Your task to perform on an android device: Open my contact list Image 0: 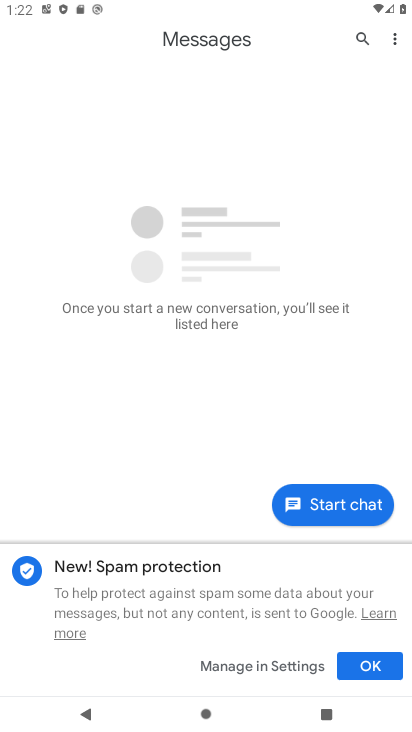
Step 0: press home button
Your task to perform on an android device: Open my contact list Image 1: 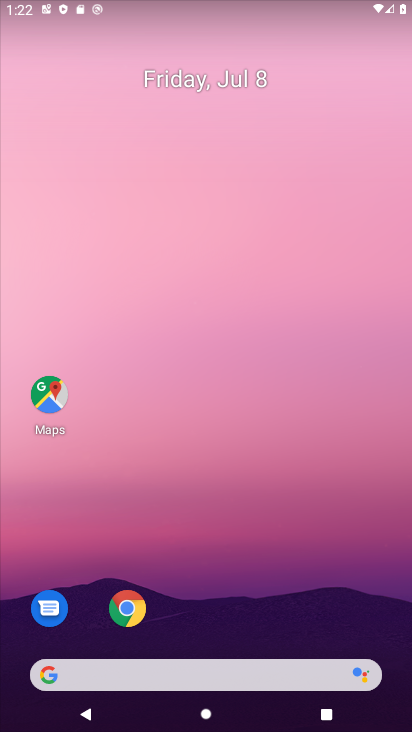
Step 1: drag from (380, 641) to (324, 88)
Your task to perform on an android device: Open my contact list Image 2: 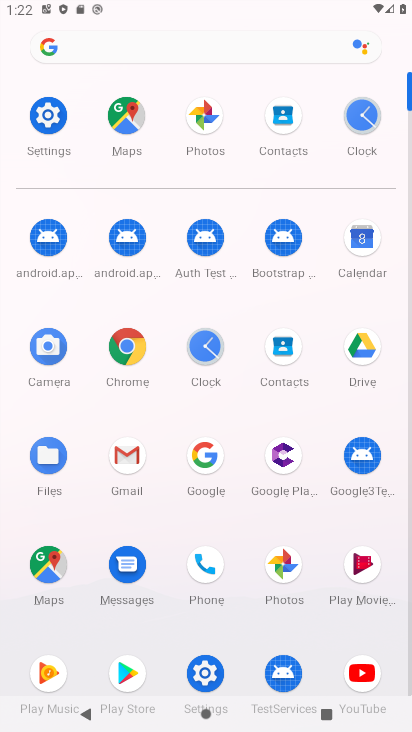
Step 2: click (280, 350)
Your task to perform on an android device: Open my contact list Image 3: 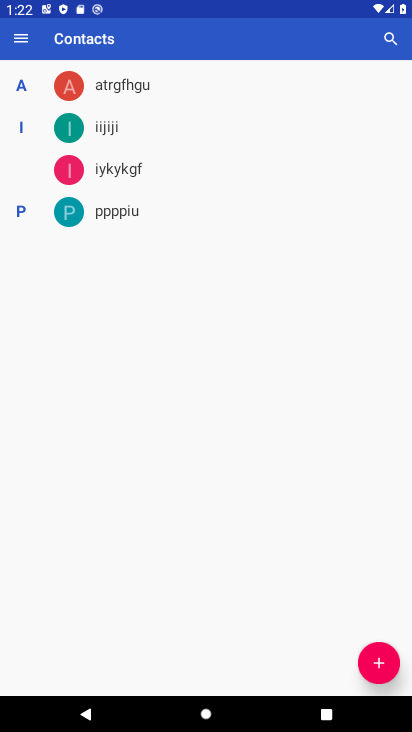
Step 3: task complete